Your task to perform on an android device: Open Android settings Image 0: 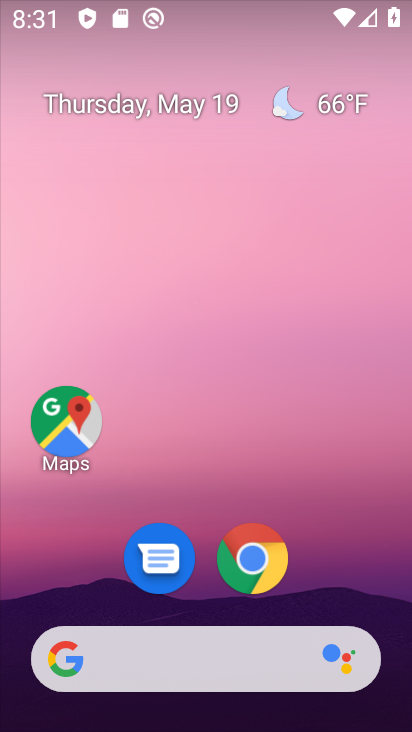
Step 0: drag from (211, 435) to (211, 291)
Your task to perform on an android device: Open Android settings Image 1: 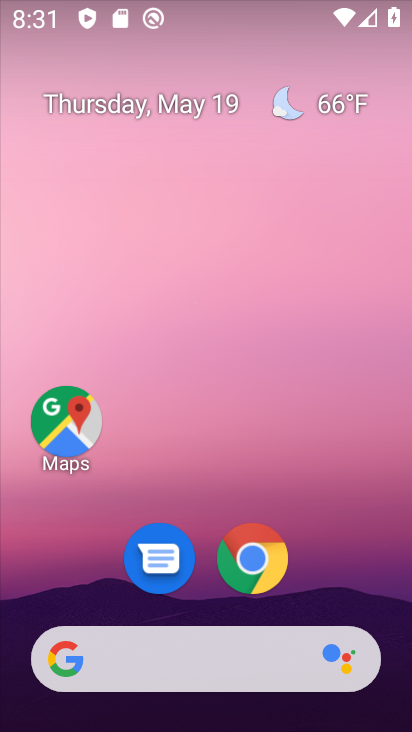
Step 1: drag from (200, 596) to (238, 146)
Your task to perform on an android device: Open Android settings Image 2: 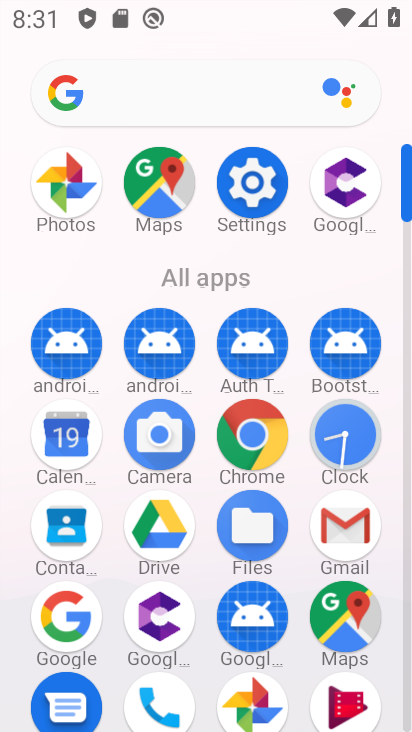
Step 2: click (238, 146)
Your task to perform on an android device: Open Android settings Image 3: 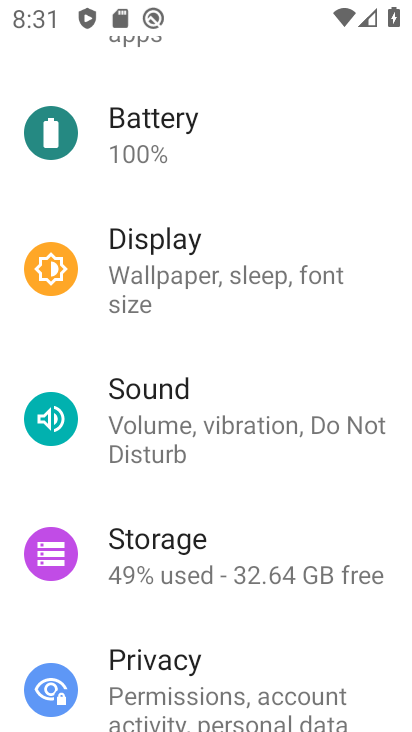
Step 3: task complete